Your task to perform on an android device: Open ESPN.com Image 0: 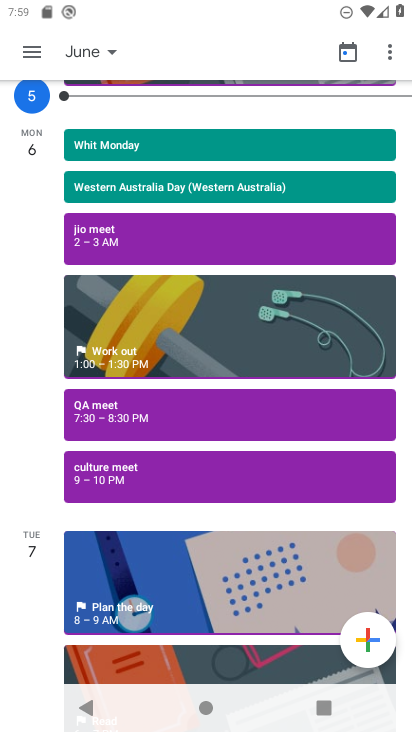
Step 0: press back button
Your task to perform on an android device: Open ESPN.com Image 1: 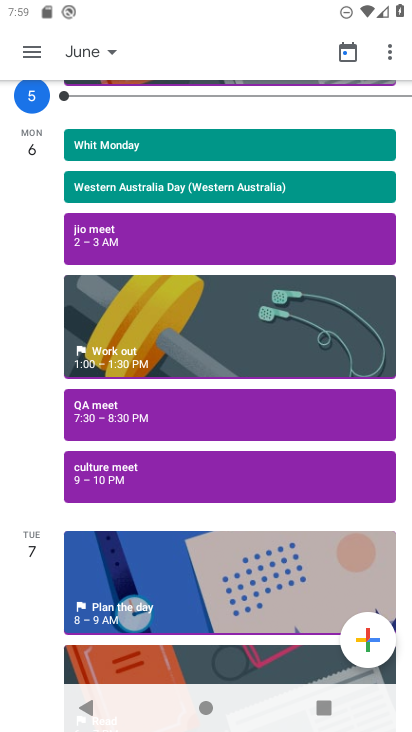
Step 1: press home button
Your task to perform on an android device: Open ESPN.com Image 2: 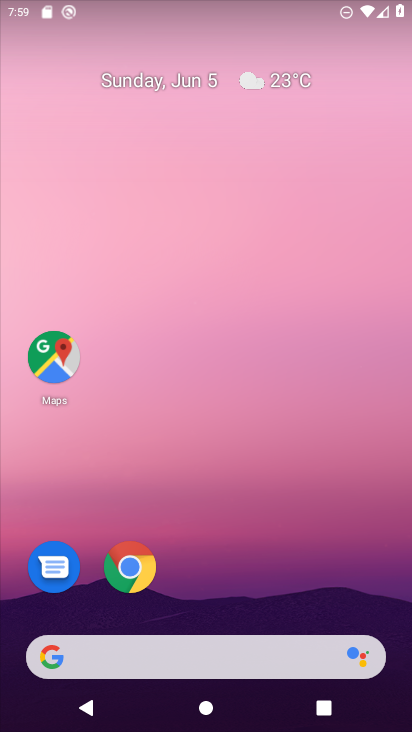
Step 2: drag from (394, 661) to (281, 38)
Your task to perform on an android device: Open ESPN.com Image 3: 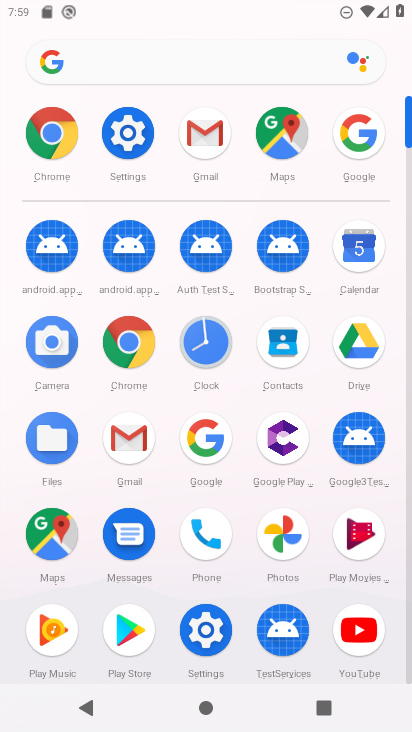
Step 3: click (201, 444)
Your task to perform on an android device: Open ESPN.com Image 4: 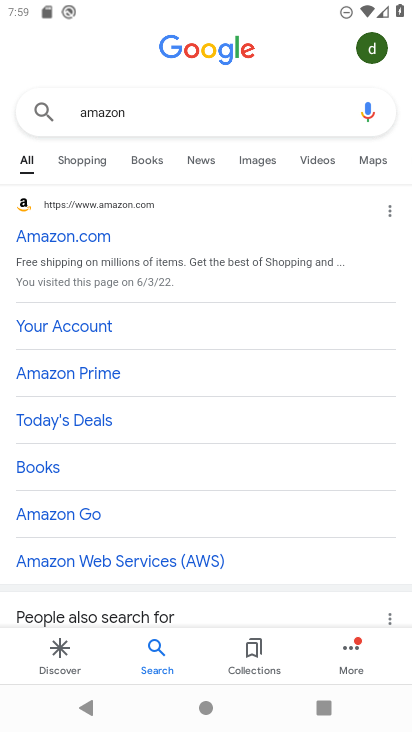
Step 4: press back button
Your task to perform on an android device: Open ESPN.com Image 5: 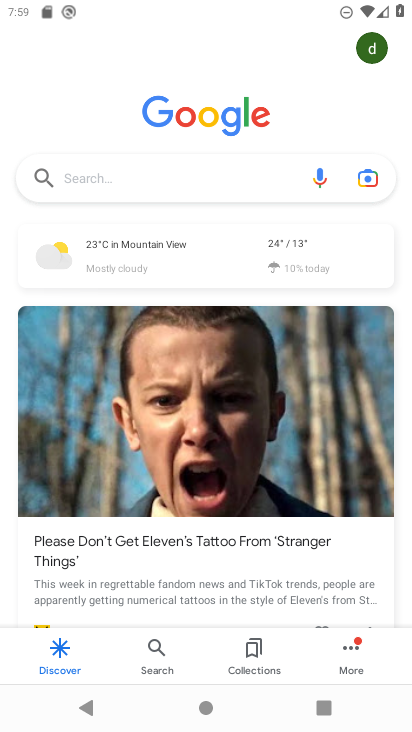
Step 5: click (125, 179)
Your task to perform on an android device: Open ESPN.com Image 6: 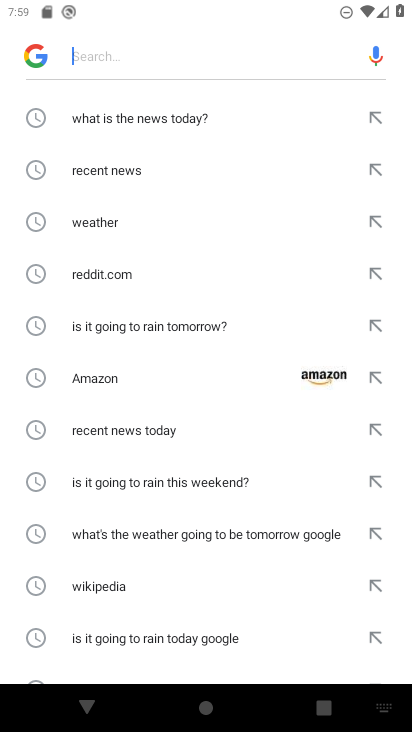
Step 6: drag from (119, 582) to (140, 181)
Your task to perform on an android device: Open ESPN.com Image 7: 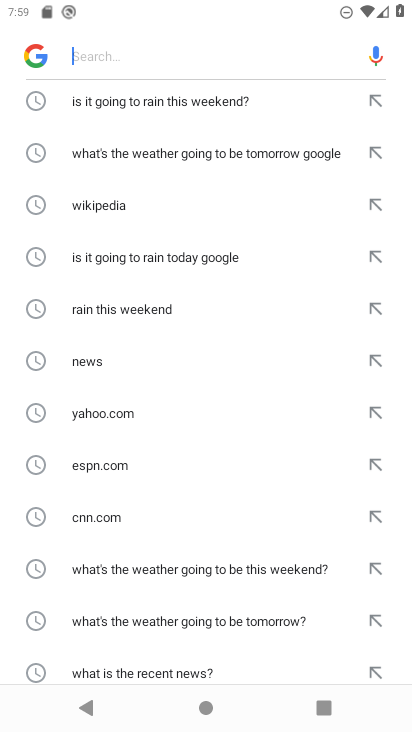
Step 7: click (138, 472)
Your task to perform on an android device: Open ESPN.com Image 8: 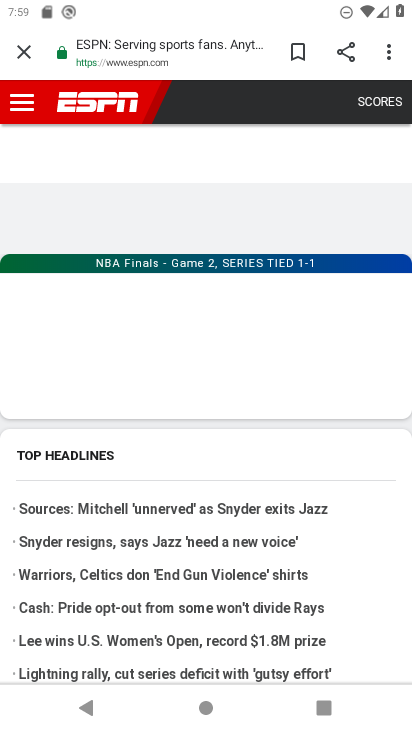
Step 8: task complete